Your task to perform on an android device: turn on priority inbox in the gmail app Image 0: 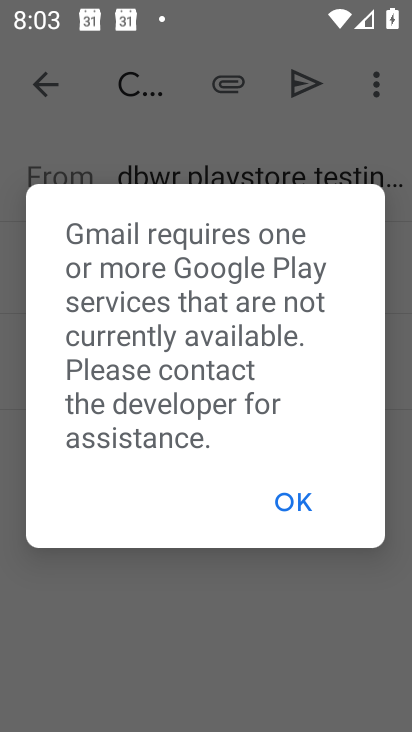
Step 0: press home button
Your task to perform on an android device: turn on priority inbox in the gmail app Image 1: 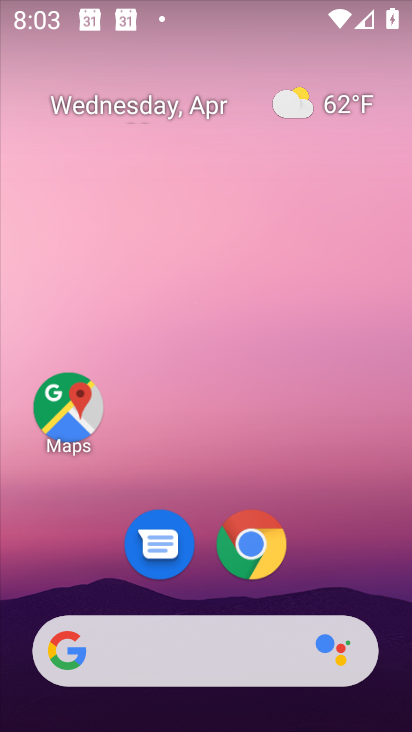
Step 1: drag from (342, 483) to (309, 113)
Your task to perform on an android device: turn on priority inbox in the gmail app Image 2: 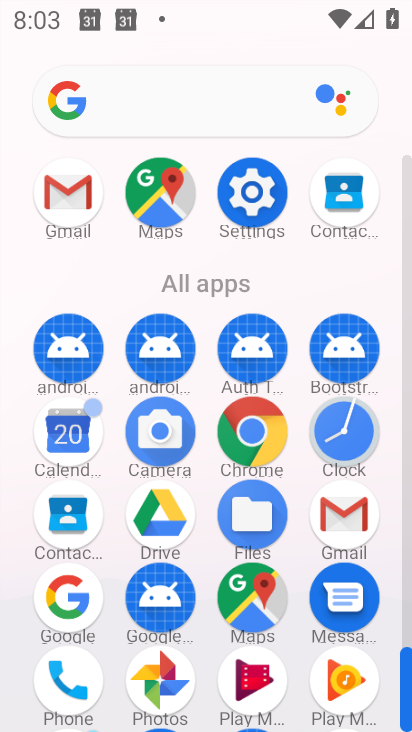
Step 2: click (346, 503)
Your task to perform on an android device: turn on priority inbox in the gmail app Image 3: 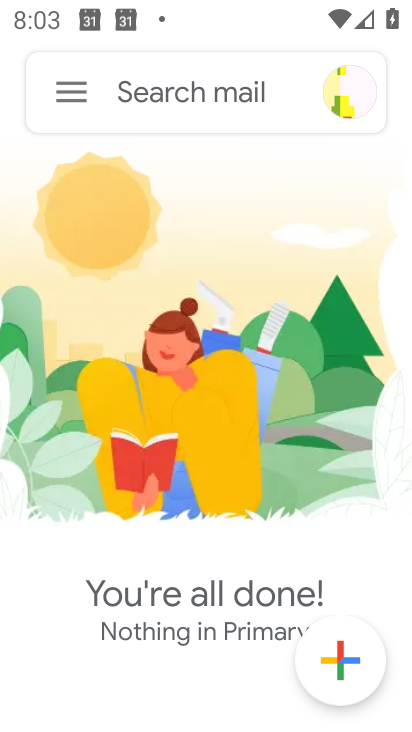
Step 3: click (63, 103)
Your task to perform on an android device: turn on priority inbox in the gmail app Image 4: 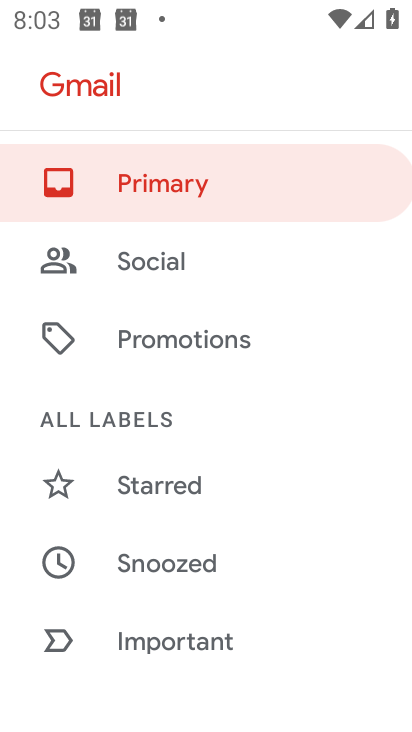
Step 4: drag from (298, 585) to (285, 131)
Your task to perform on an android device: turn on priority inbox in the gmail app Image 5: 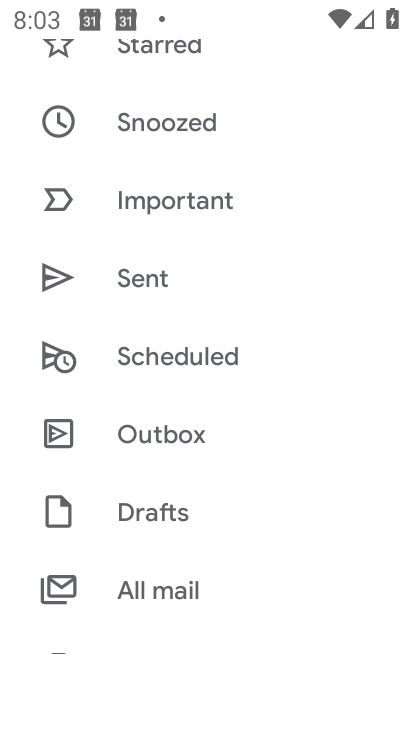
Step 5: drag from (324, 600) to (323, 154)
Your task to perform on an android device: turn on priority inbox in the gmail app Image 6: 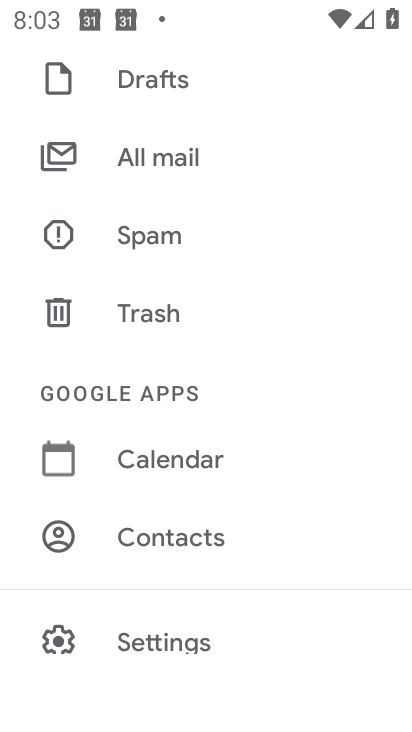
Step 6: drag from (297, 545) to (295, 220)
Your task to perform on an android device: turn on priority inbox in the gmail app Image 7: 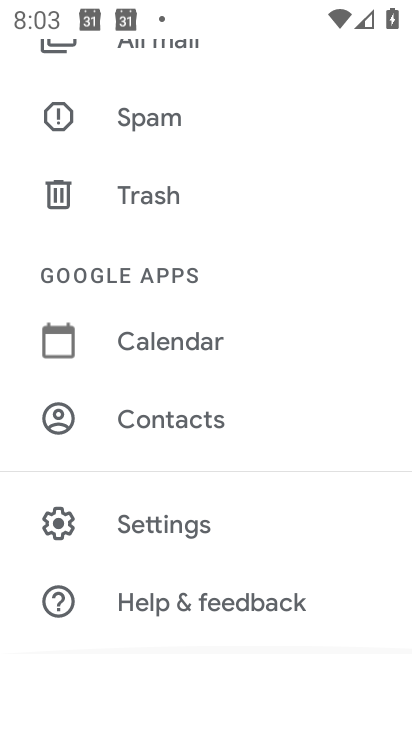
Step 7: click (151, 517)
Your task to perform on an android device: turn on priority inbox in the gmail app Image 8: 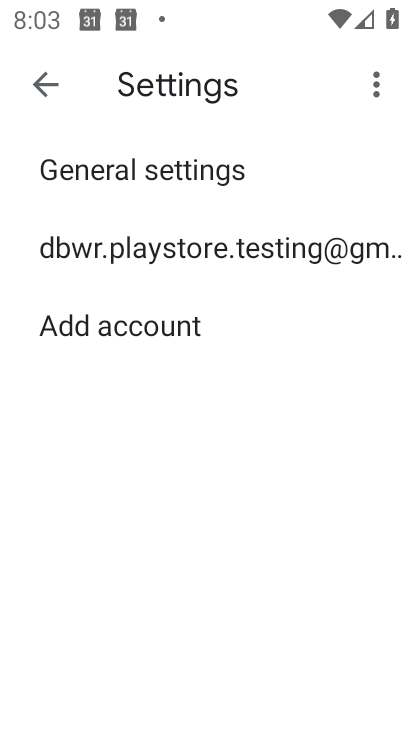
Step 8: click (182, 249)
Your task to perform on an android device: turn on priority inbox in the gmail app Image 9: 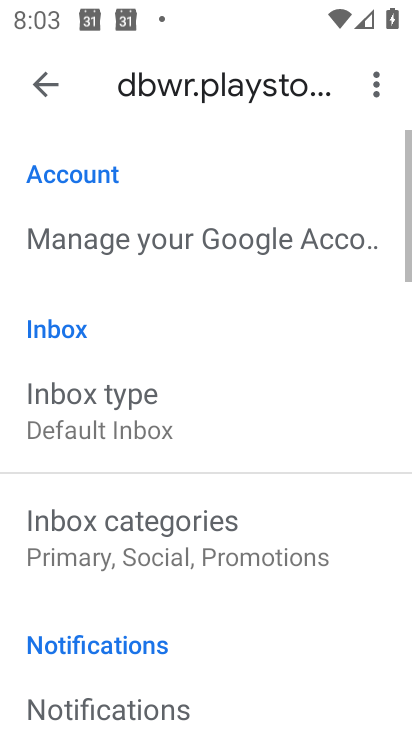
Step 9: click (86, 407)
Your task to perform on an android device: turn on priority inbox in the gmail app Image 10: 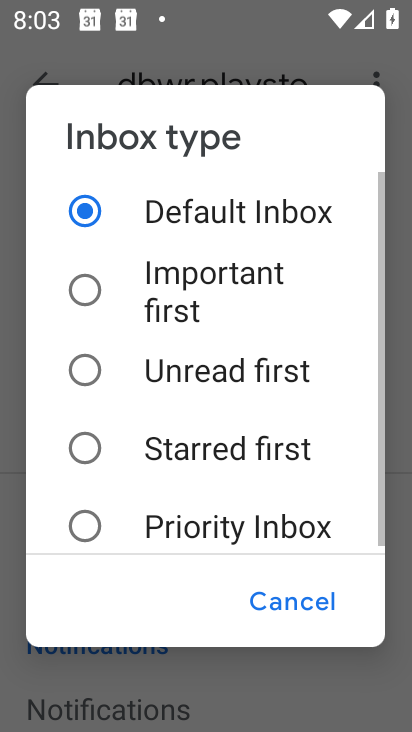
Step 10: click (94, 526)
Your task to perform on an android device: turn on priority inbox in the gmail app Image 11: 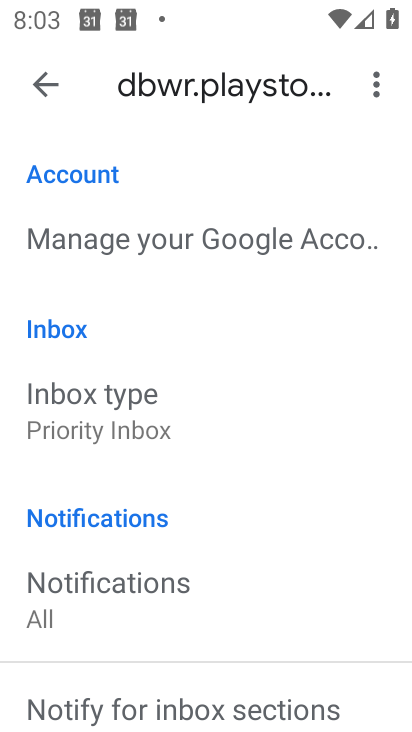
Step 11: task complete